Your task to perform on an android device: Find the nearest grocery store Image 0: 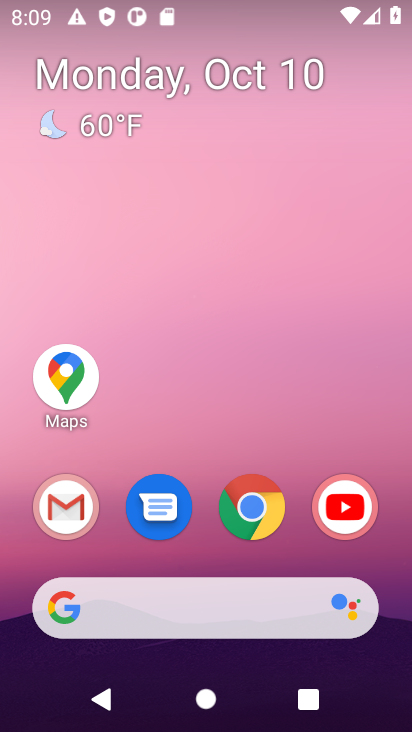
Step 0: click (348, 38)
Your task to perform on an android device: Find the nearest grocery store Image 1: 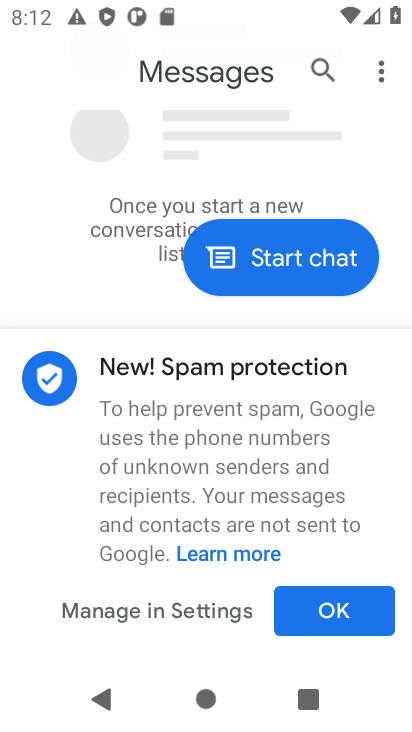
Step 1: press home button
Your task to perform on an android device: Find the nearest grocery store Image 2: 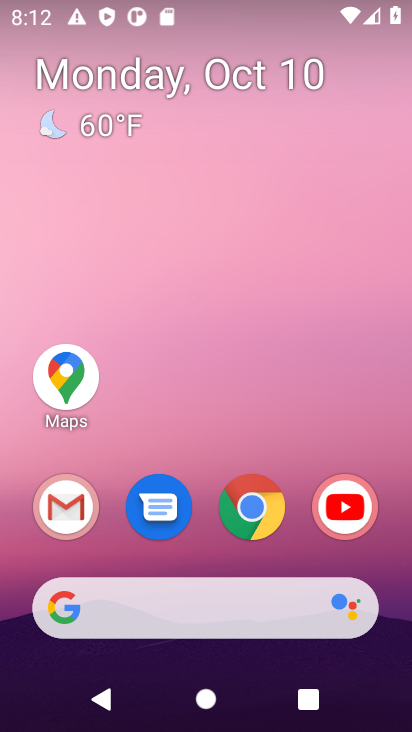
Step 2: click (242, 614)
Your task to perform on an android device: Find the nearest grocery store Image 3: 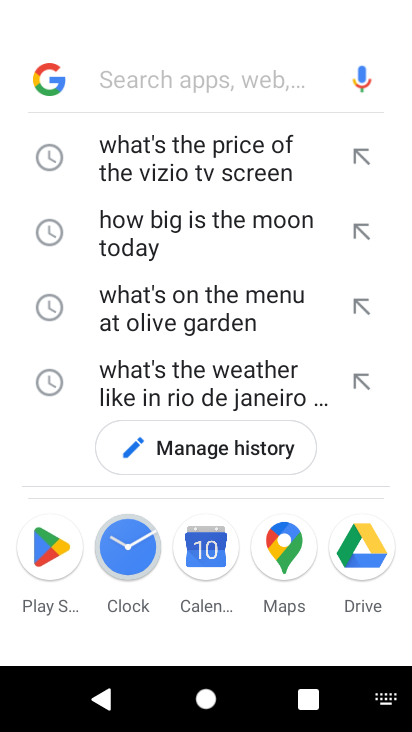
Step 3: click (145, 80)
Your task to perform on an android device: Find the nearest grocery store Image 4: 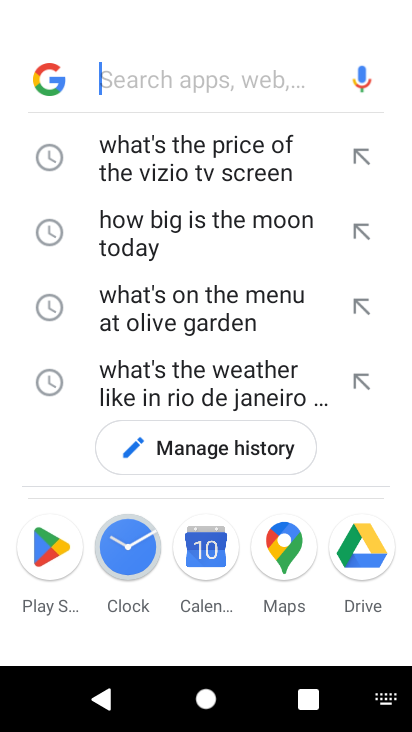
Step 4: type "Find the nearest grocery store"
Your task to perform on an android device: Find the nearest grocery store Image 5: 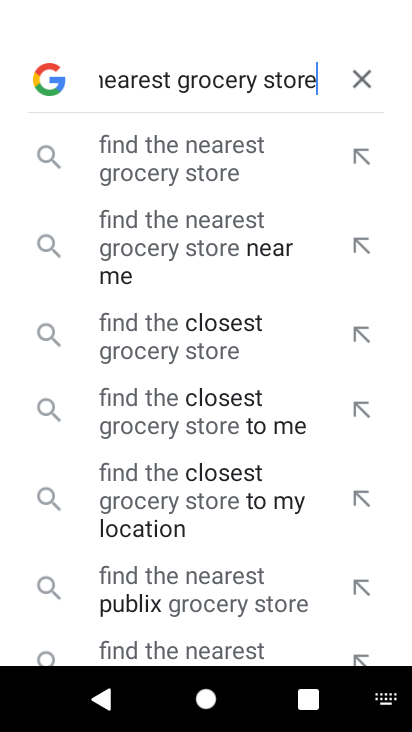
Step 5: click (215, 179)
Your task to perform on an android device: Find the nearest grocery store Image 6: 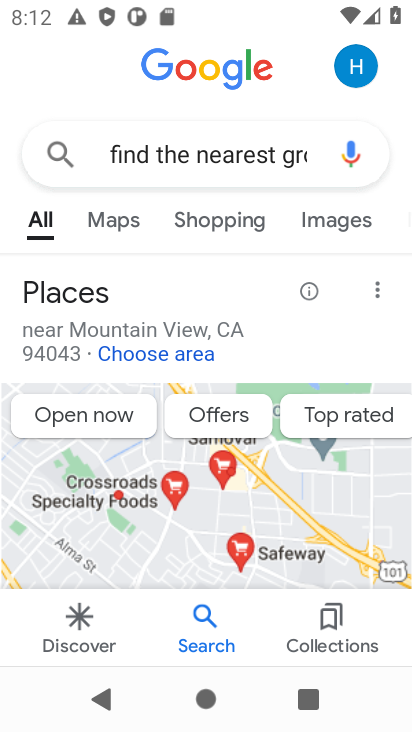
Step 6: task complete